Your task to perform on an android device: turn off translation in the chrome app Image 0: 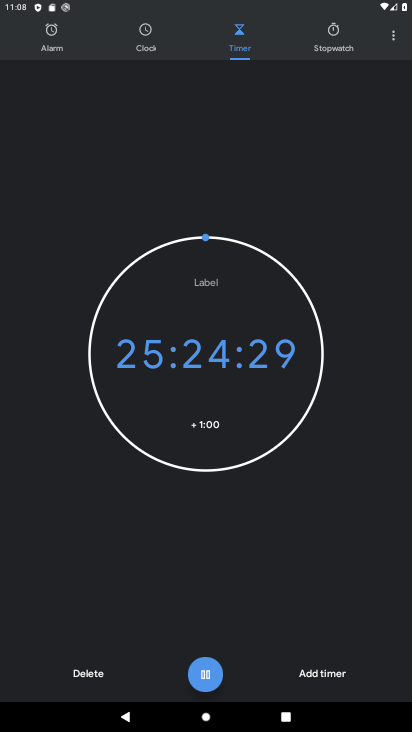
Step 0: press home button
Your task to perform on an android device: turn off translation in the chrome app Image 1: 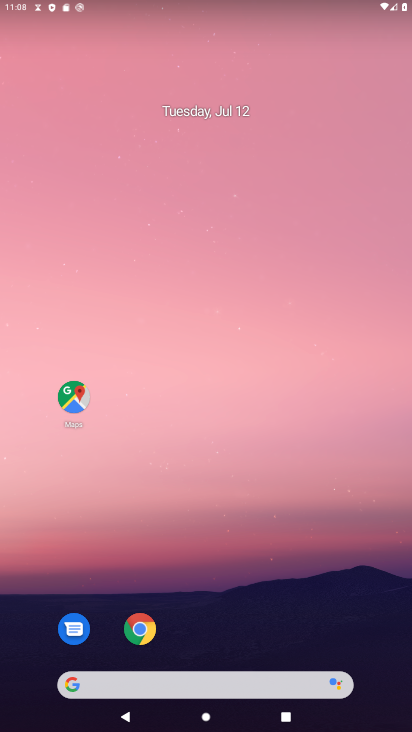
Step 1: drag from (283, 519) to (365, 96)
Your task to perform on an android device: turn off translation in the chrome app Image 2: 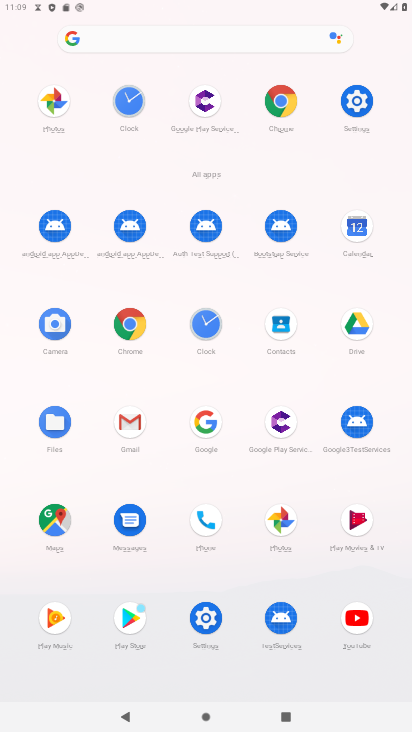
Step 2: click (283, 108)
Your task to perform on an android device: turn off translation in the chrome app Image 3: 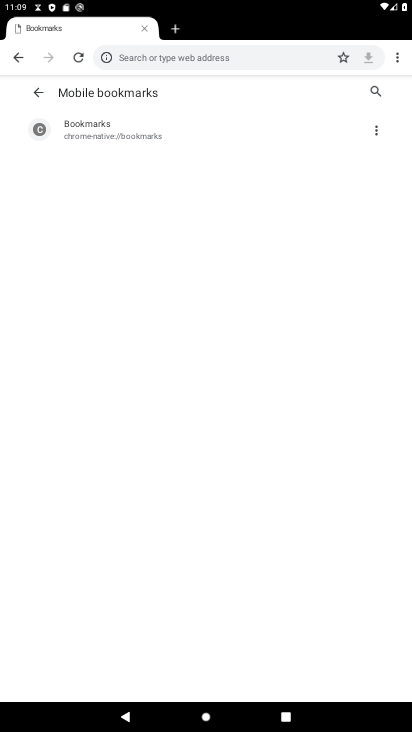
Step 3: press home button
Your task to perform on an android device: turn off translation in the chrome app Image 4: 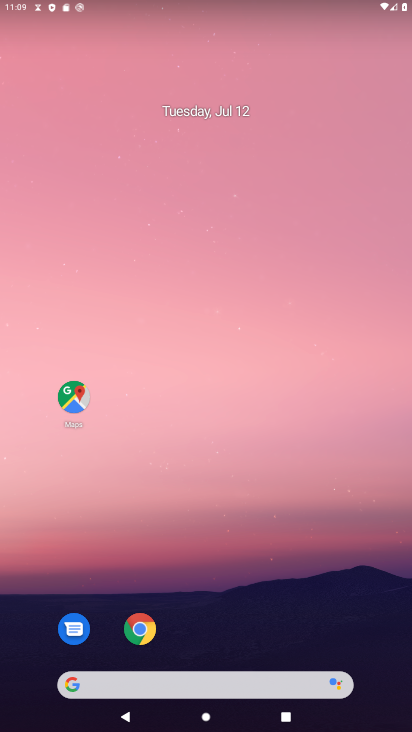
Step 4: drag from (357, 618) to (411, 134)
Your task to perform on an android device: turn off translation in the chrome app Image 5: 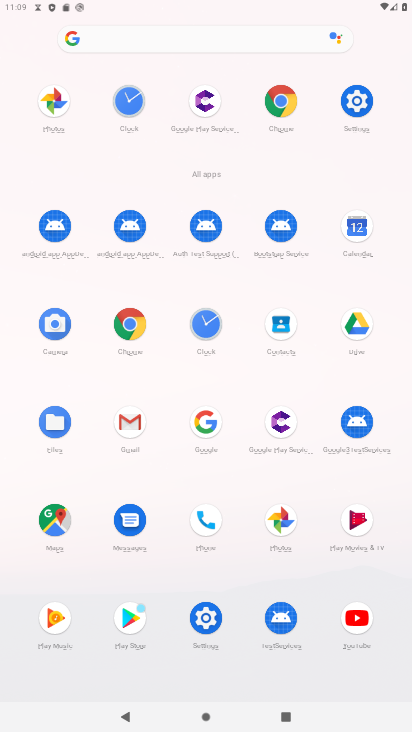
Step 5: click (291, 110)
Your task to perform on an android device: turn off translation in the chrome app Image 6: 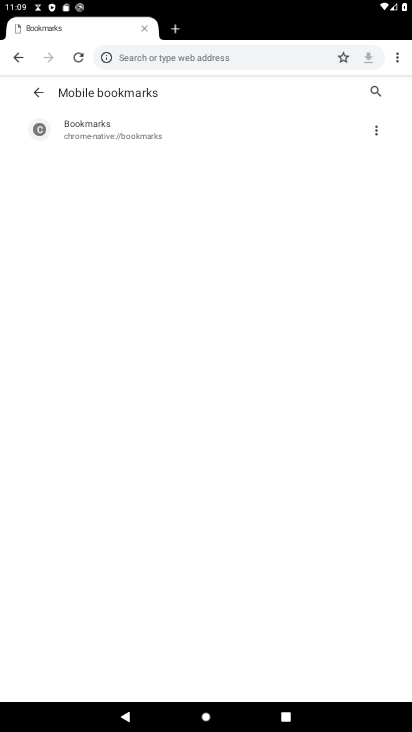
Step 6: click (18, 63)
Your task to perform on an android device: turn off translation in the chrome app Image 7: 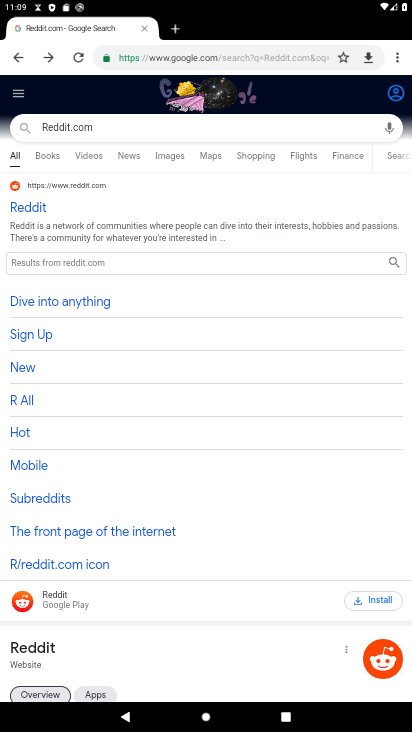
Step 7: click (16, 58)
Your task to perform on an android device: turn off translation in the chrome app Image 8: 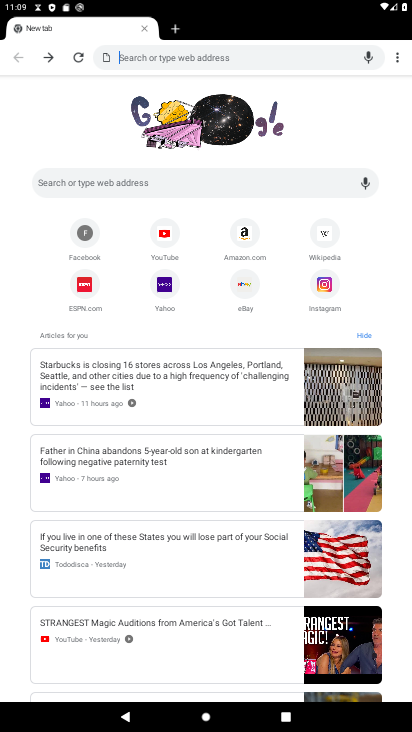
Step 8: drag from (404, 49) to (257, 269)
Your task to perform on an android device: turn off translation in the chrome app Image 9: 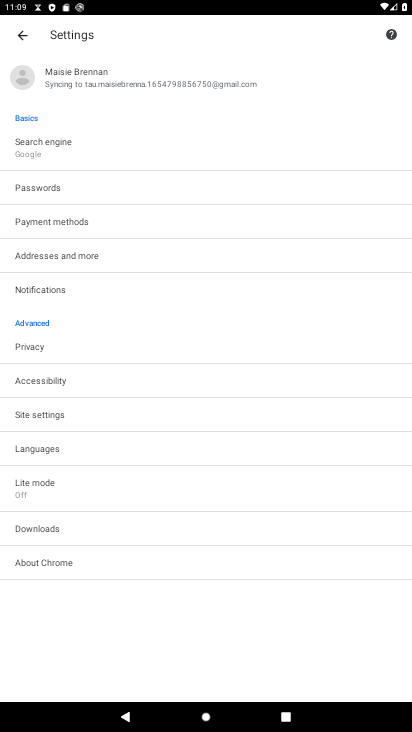
Step 9: click (115, 451)
Your task to perform on an android device: turn off translation in the chrome app Image 10: 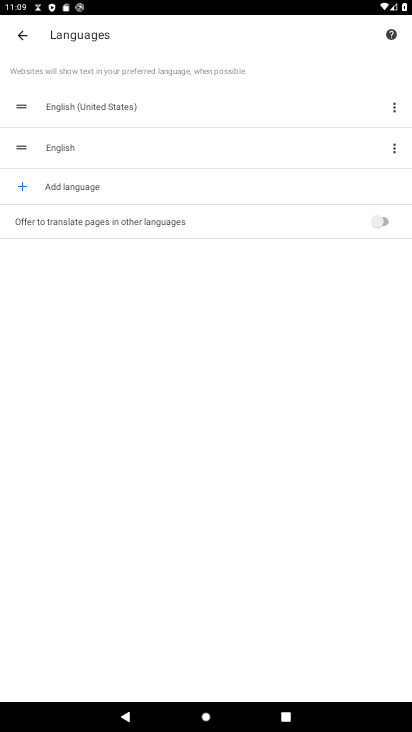
Step 10: task complete